Your task to perform on an android device: Search for "logitech g933" on costco.com, select the first entry, and add it to the cart. Image 0: 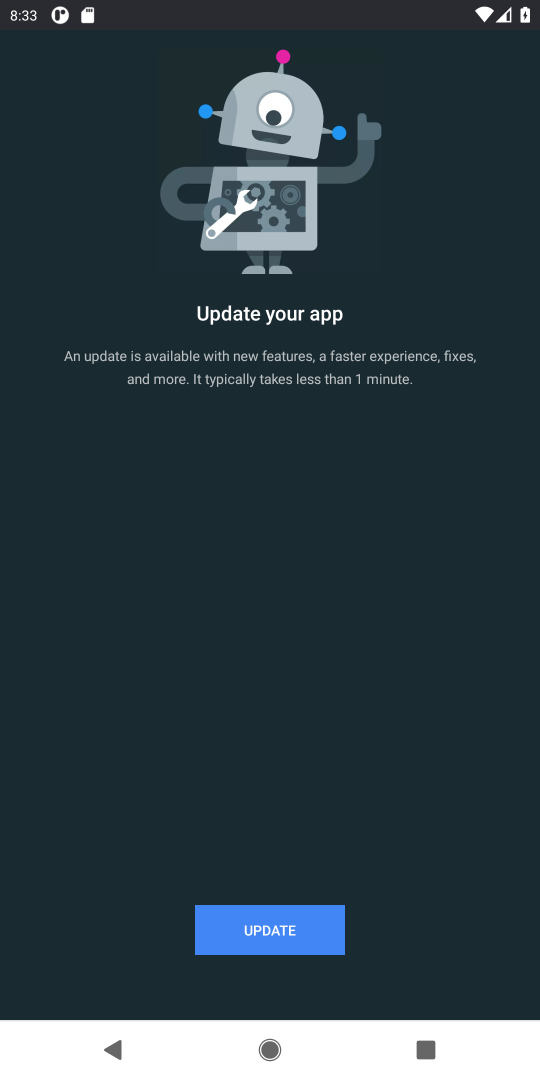
Step 0: press home button
Your task to perform on an android device: Search for "logitech g933" on costco.com, select the first entry, and add it to the cart. Image 1: 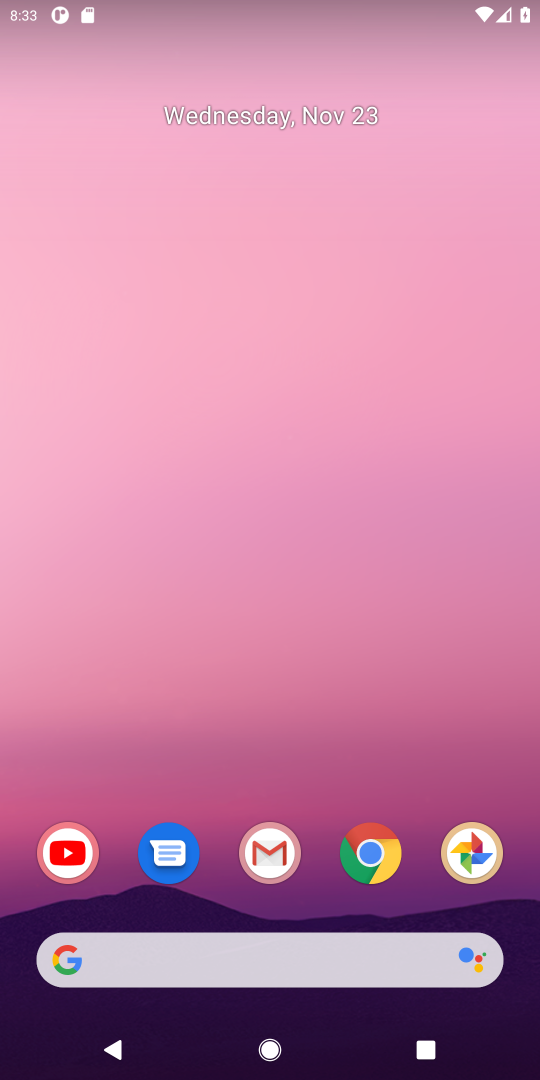
Step 1: click (367, 856)
Your task to perform on an android device: Search for "logitech g933" on costco.com, select the first entry, and add it to the cart. Image 2: 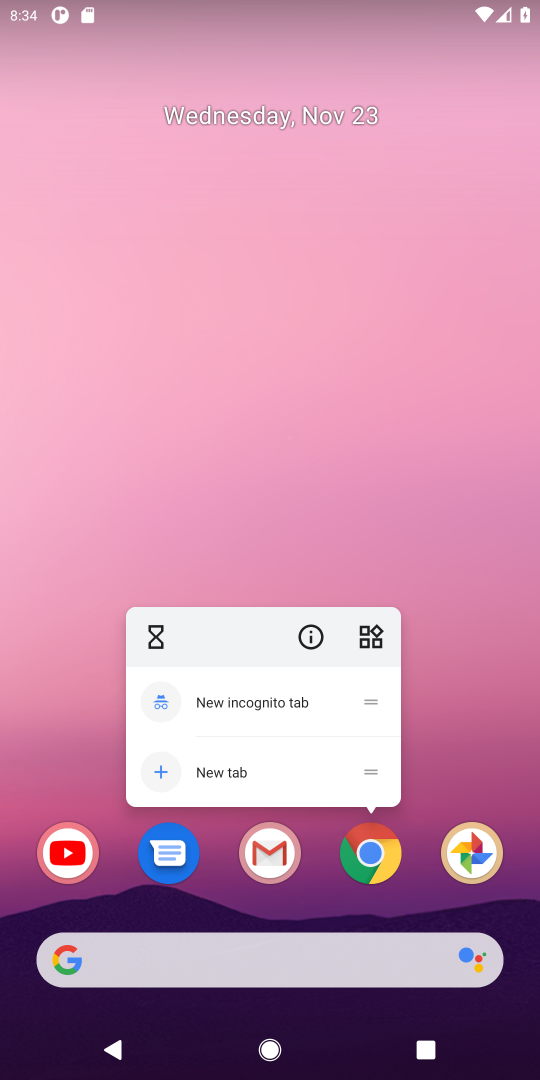
Step 2: click (367, 856)
Your task to perform on an android device: Search for "logitech g933" on costco.com, select the first entry, and add it to the cart. Image 3: 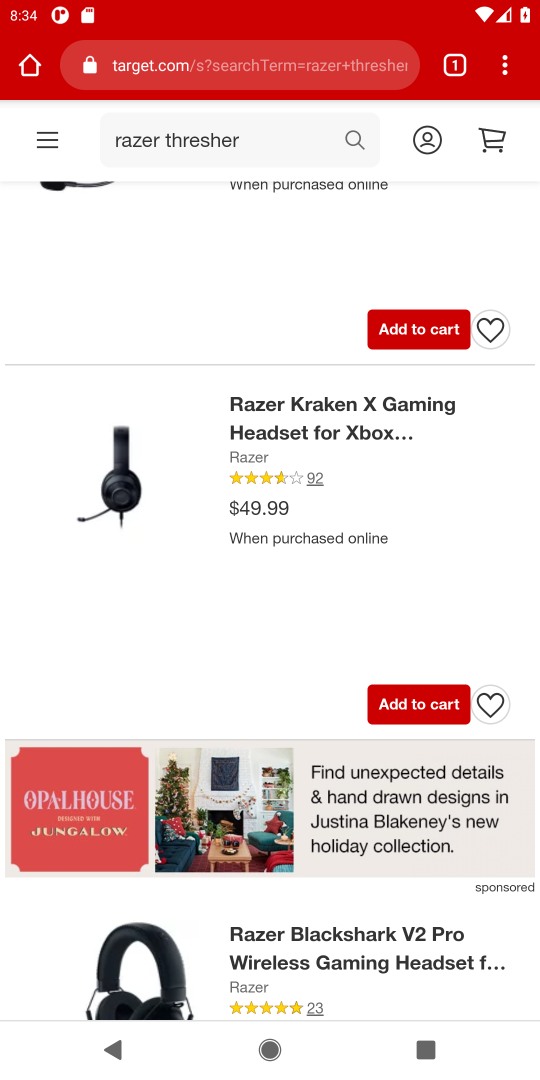
Step 3: click (185, 57)
Your task to perform on an android device: Search for "logitech g933" on costco.com, select the first entry, and add it to the cart. Image 4: 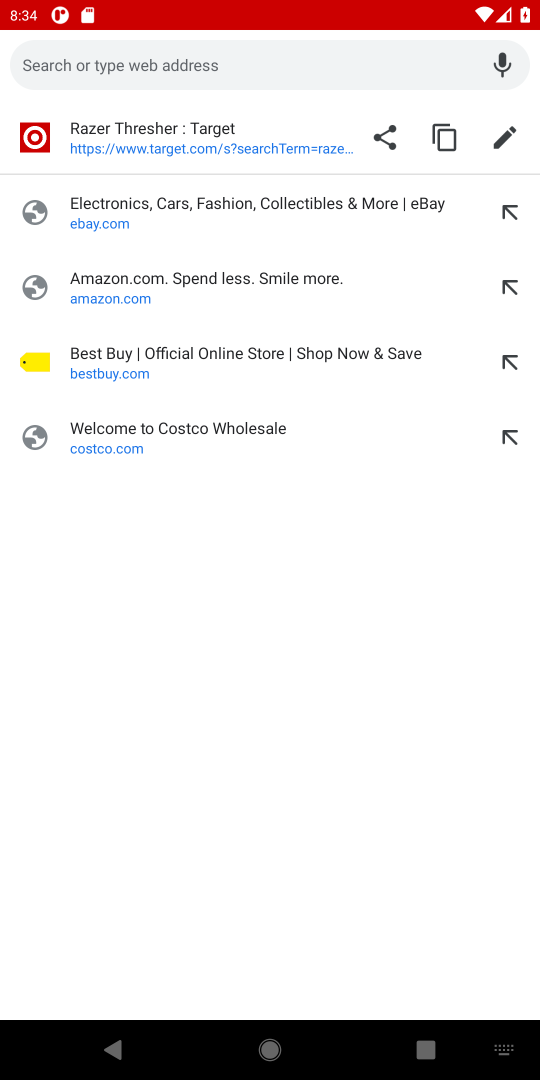
Step 4: click (104, 435)
Your task to perform on an android device: Search for "logitech g933" on costco.com, select the first entry, and add it to the cart. Image 5: 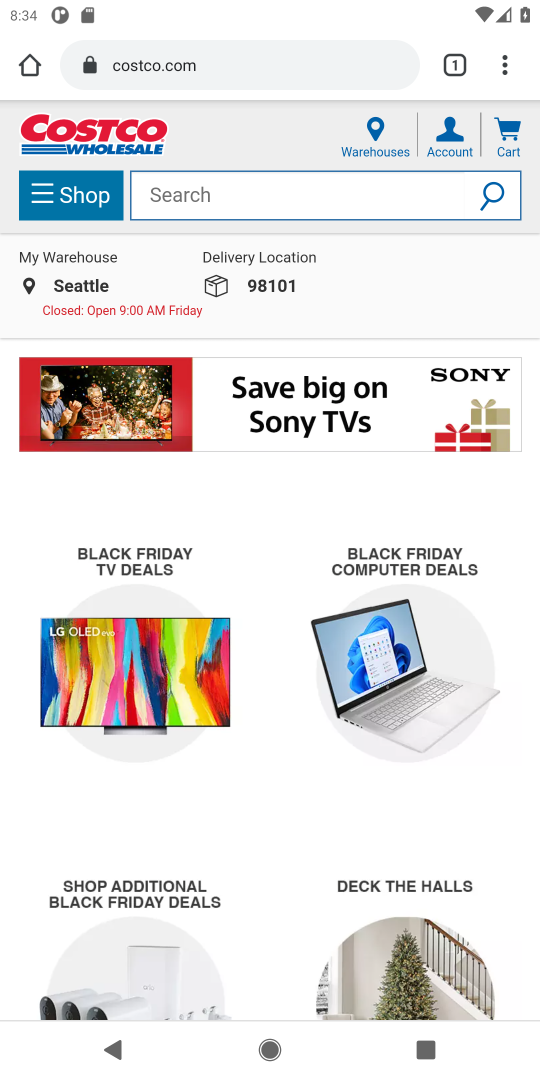
Step 5: click (195, 182)
Your task to perform on an android device: Search for "logitech g933" on costco.com, select the first entry, and add it to the cart. Image 6: 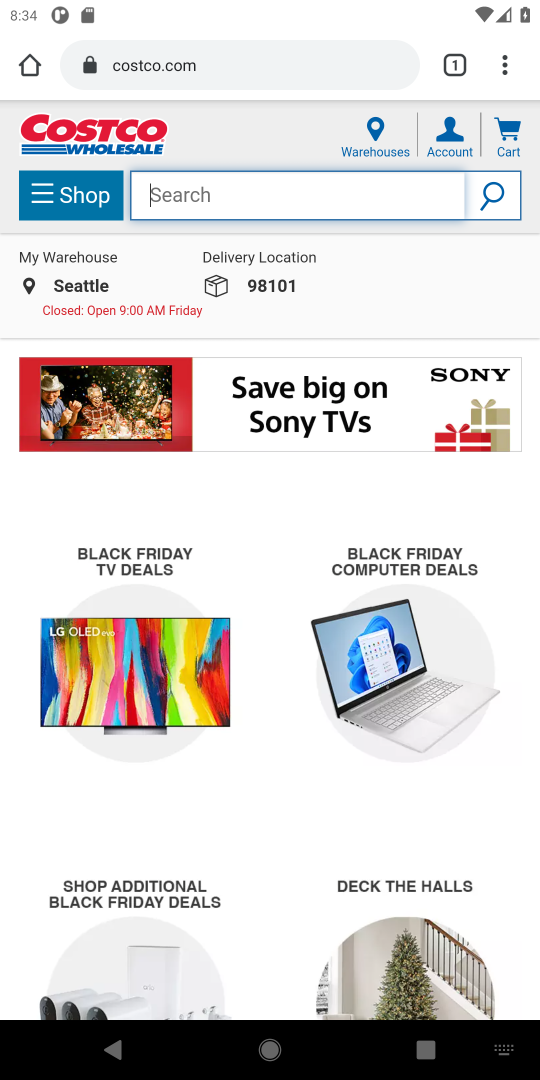
Step 6: type "logitech g933"
Your task to perform on an android device: Search for "logitech g933" on costco.com, select the first entry, and add it to the cart. Image 7: 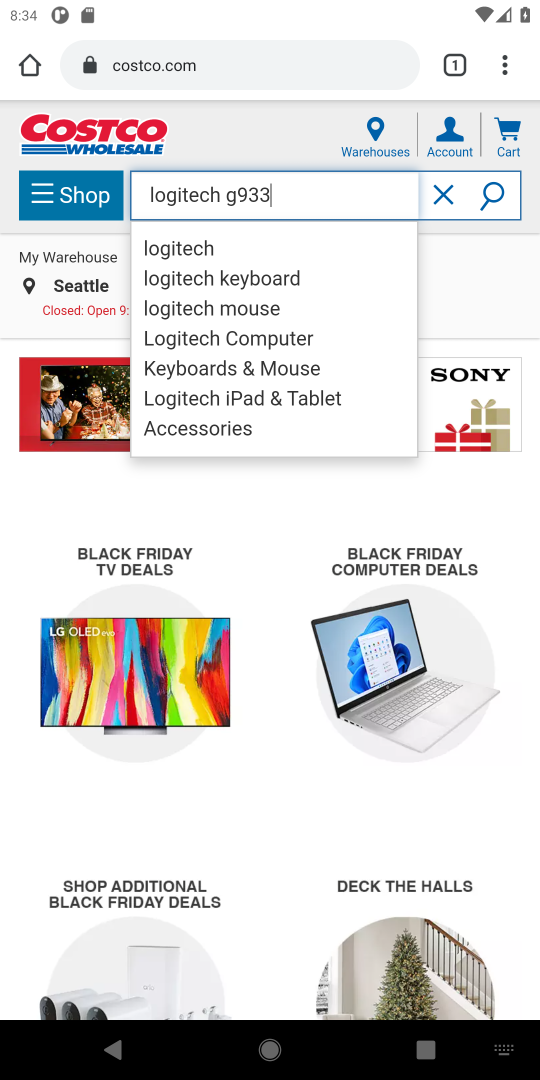
Step 7: click (495, 202)
Your task to perform on an android device: Search for "logitech g933" on costco.com, select the first entry, and add it to the cart. Image 8: 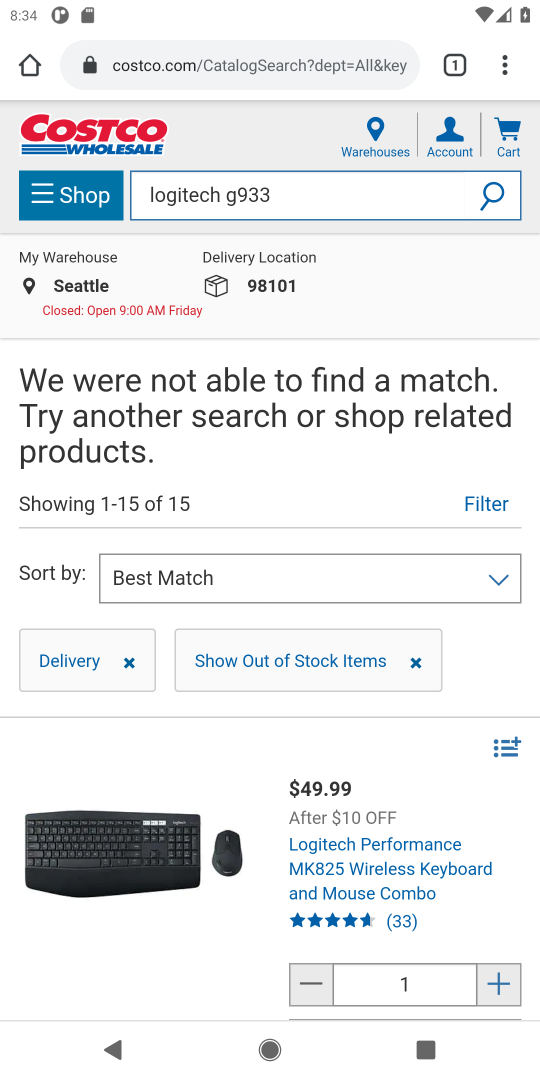
Step 8: task complete